Your task to perform on an android device: Go to Wikipedia Image 0: 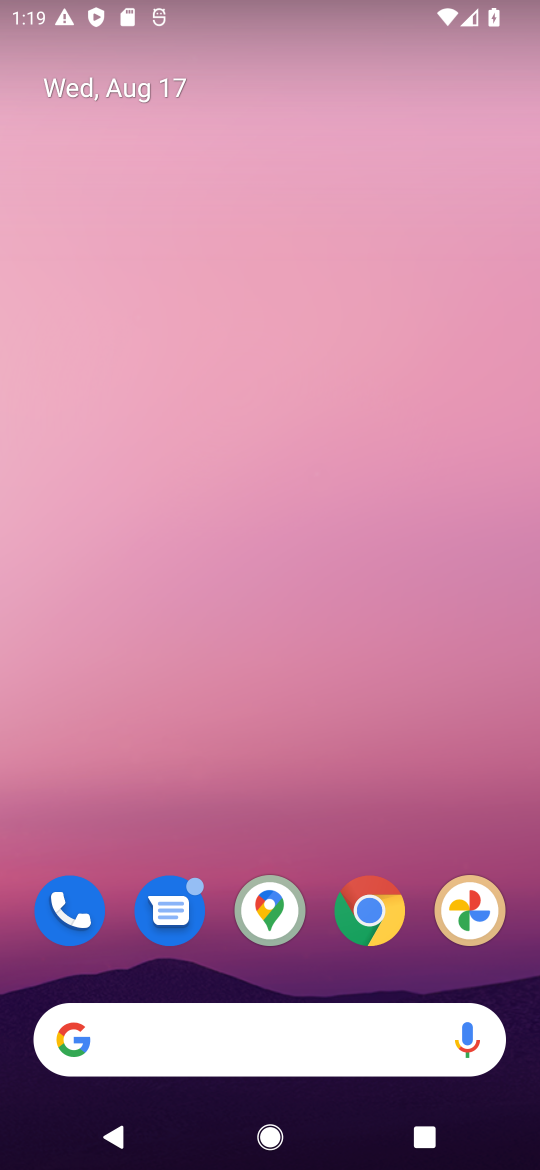
Step 0: click (359, 906)
Your task to perform on an android device: Go to Wikipedia Image 1: 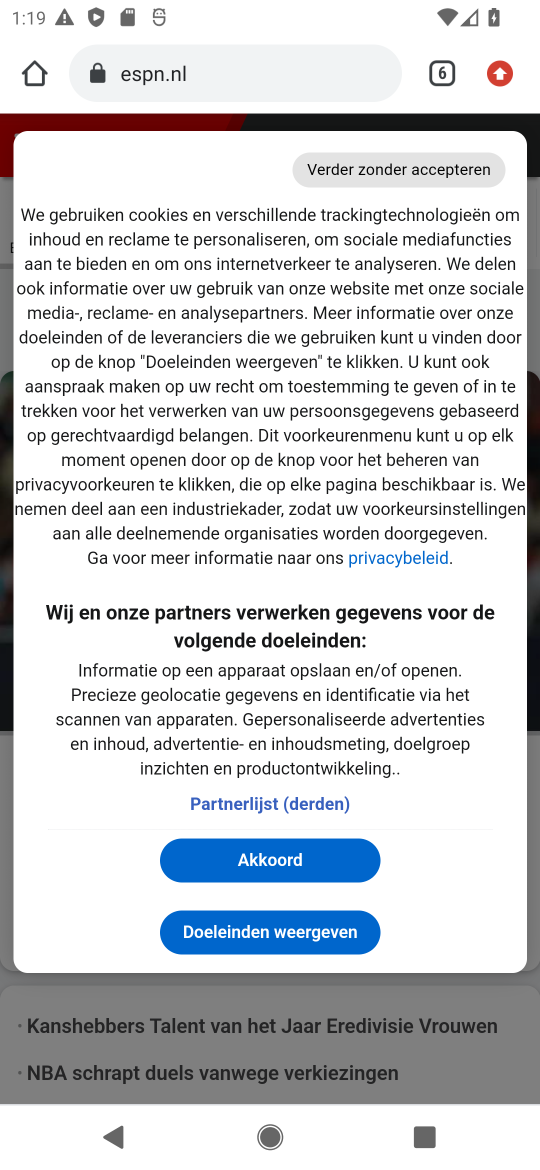
Step 1: click (437, 69)
Your task to perform on an android device: Go to Wikipedia Image 2: 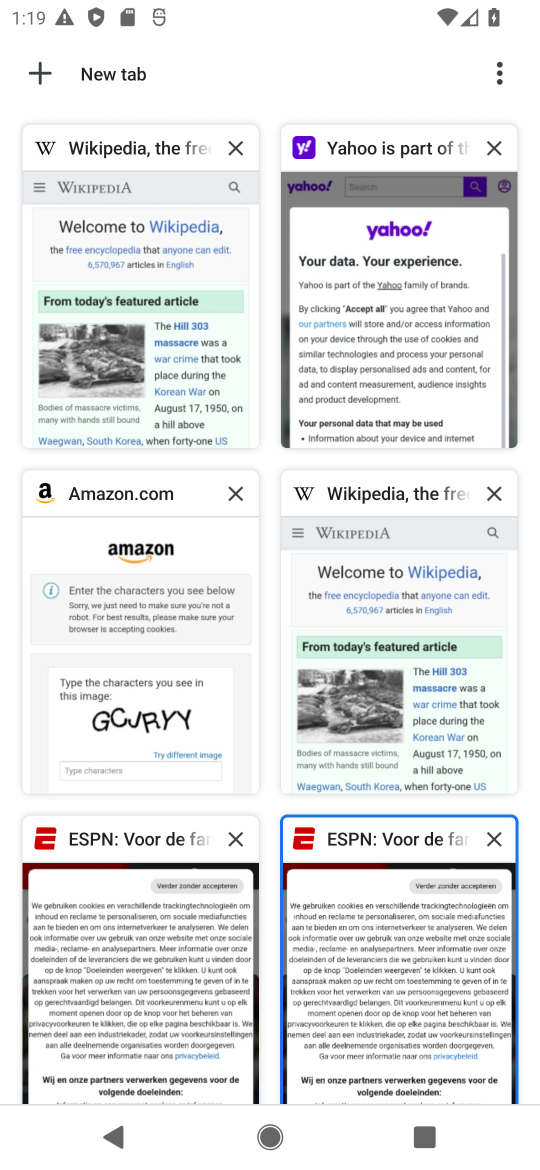
Step 2: click (130, 171)
Your task to perform on an android device: Go to Wikipedia Image 3: 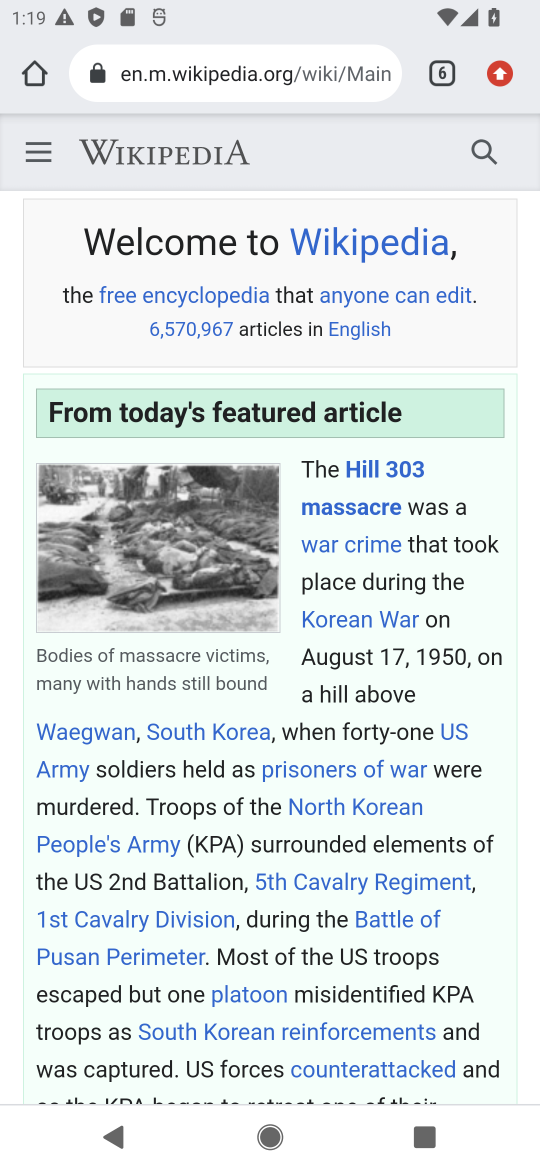
Step 3: task complete